Your task to perform on an android device: add a contact in the contacts app Image 0: 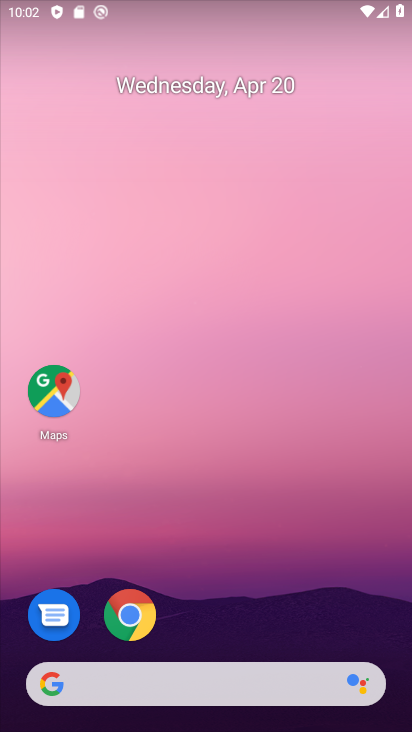
Step 0: drag from (344, 636) to (330, 82)
Your task to perform on an android device: add a contact in the contacts app Image 1: 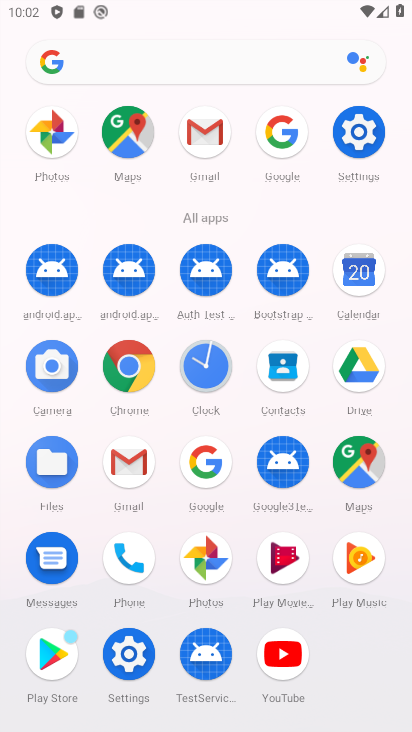
Step 1: click (284, 372)
Your task to perform on an android device: add a contact in the contacts app Image 2: 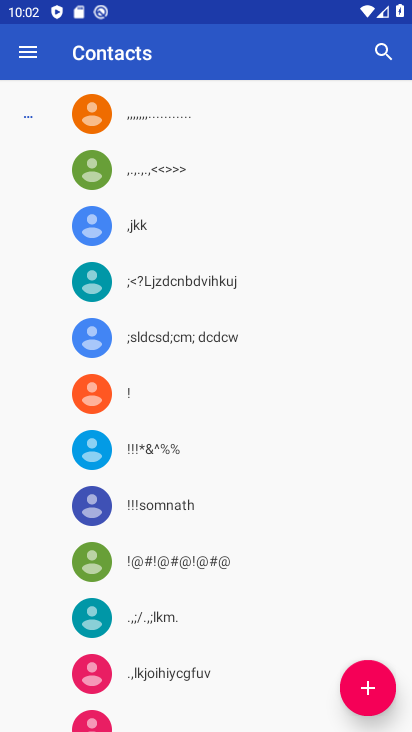
Step 2: click (370, 687)
Your task to perform on an android device: add a contact in the contacts app Image 3: 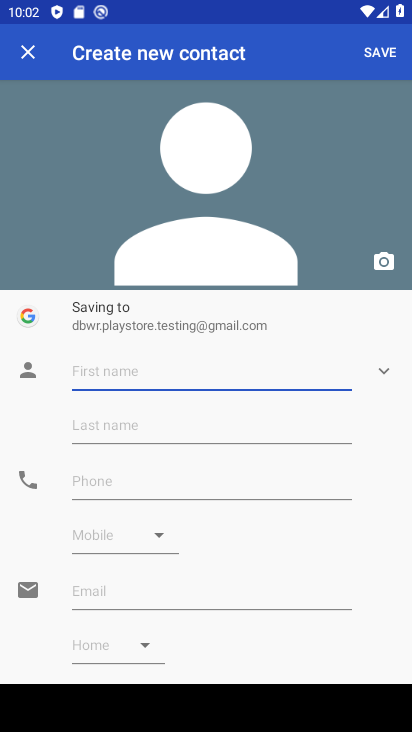
Step 3: click (165, 360)
Your task to perform on an android device: add a contact in the contacts app Image 4: 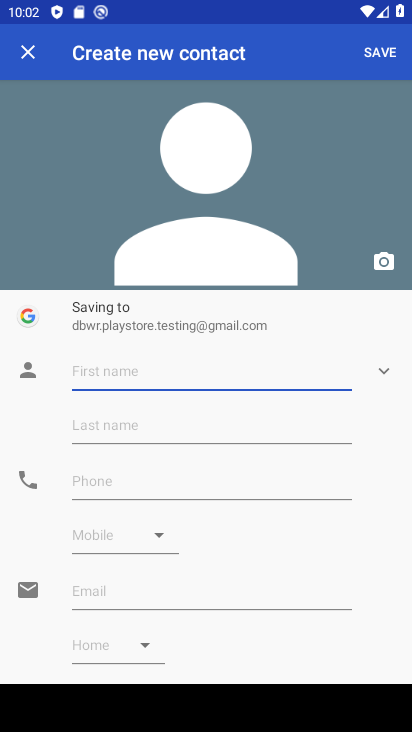
Step 4: type "Radha"
Your task to perform on an android device: add a contact in the contacts app Image 5: 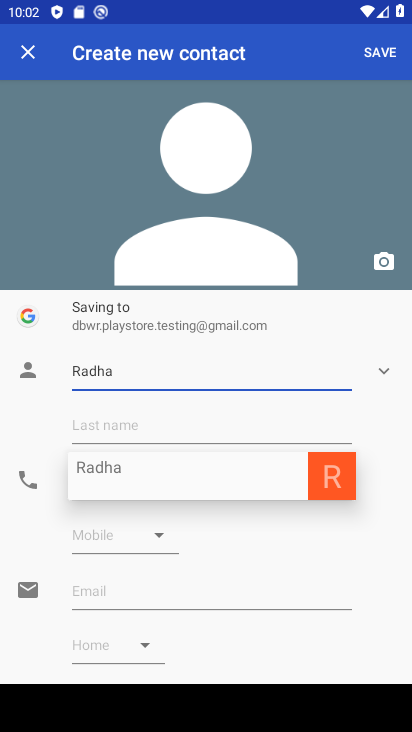
Step 5: type "1"
Your task to perform on an android device: add a contact in the contacts app Image 6: 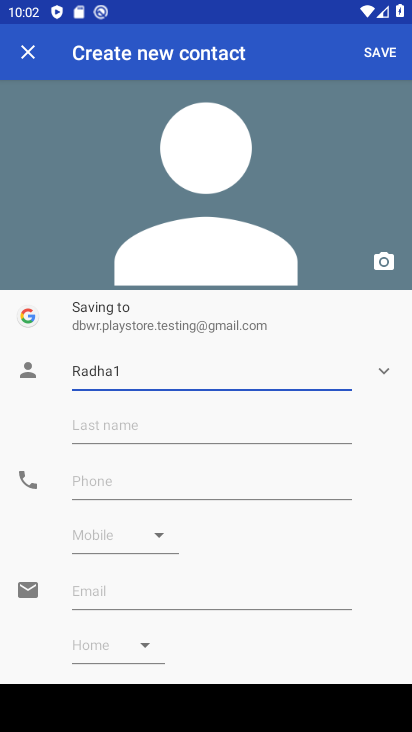
Step 6: click (136, 484)
Your task to perform on an android device: add a contact in the contacts app Image 7: 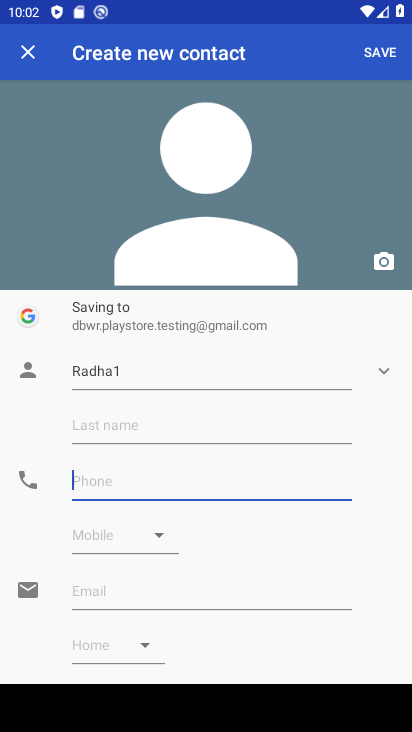
Step 7: type "3534679876"
Your task to perform on an android device: add a contact in the contacts app Image 8: 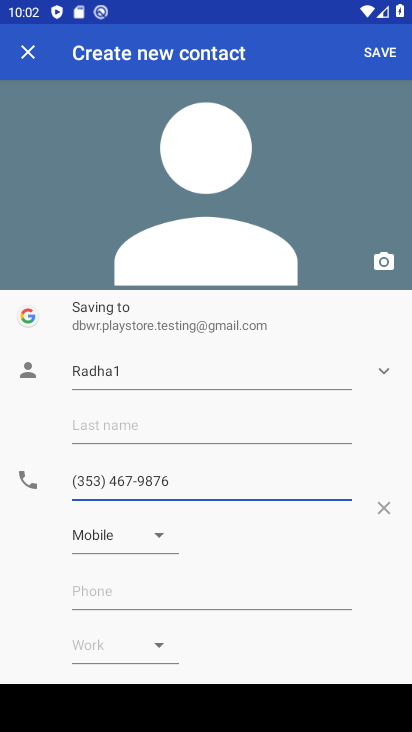
Step 8: click (378, 53)
Your task to perform on an android device: add a contact in the contacts app Image 9: 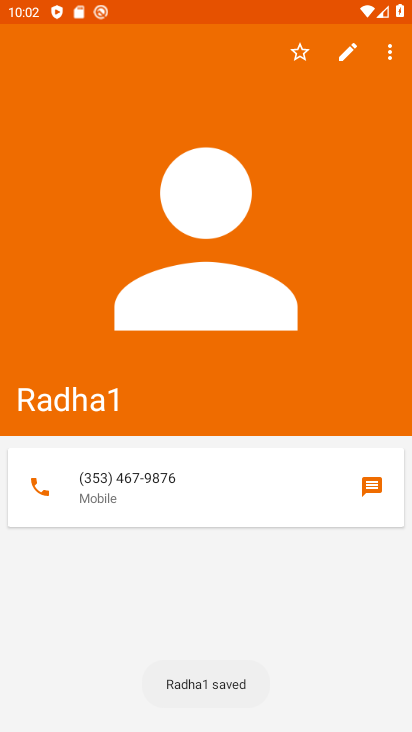
Step 9: task complete